Your task to perform on an android device: change notification settings in the gmail app Image 0: 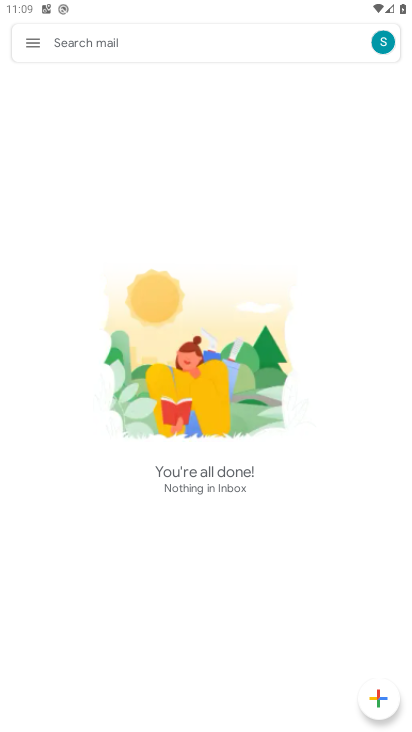
Step 0: press home button
Your task to perform on an android device: change notification settings in the gmail app Image 1: 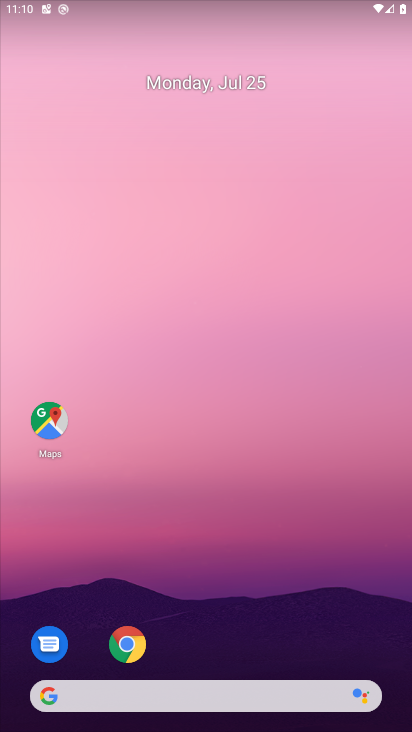
Step 1: drag from (290, 649) to (206, 19)
Your task to perform on an android device: change notification settings in the gmail app Image 2: 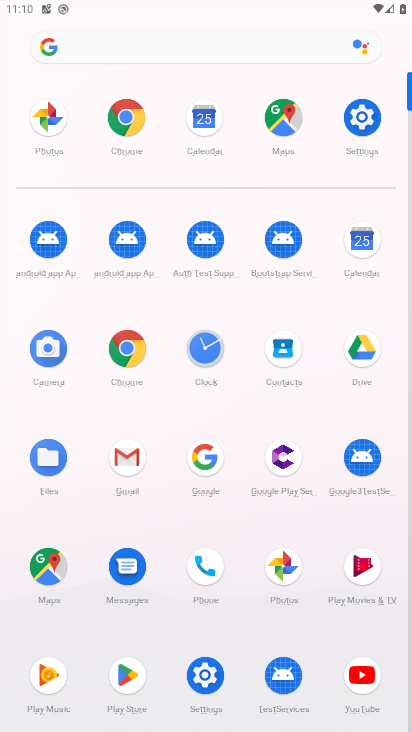
Step 2: click (119, 452)
Your task to perform on an android device: change notification settings in the gmail app Image 3: 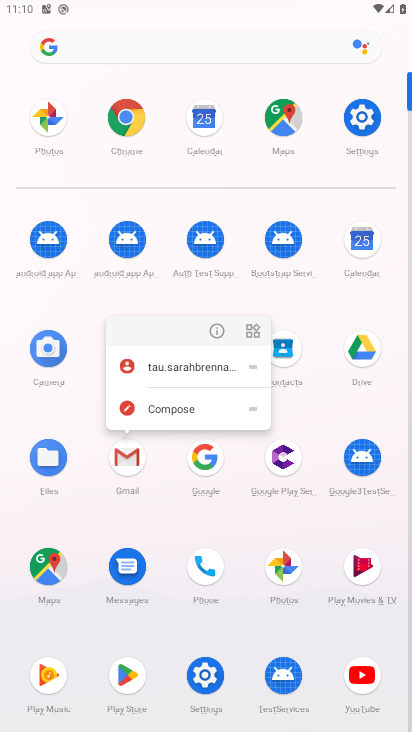
Step 3: click (216, 363)
Your task to perform on an android device: change notification settings in the gmail app Image 4: 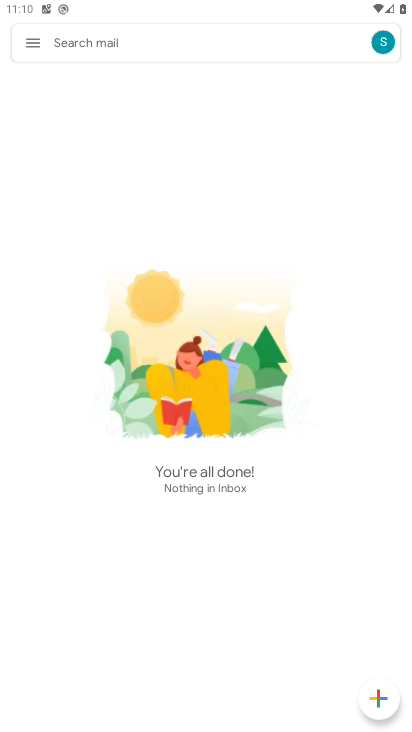
Step 4: press home button
Your task to perform on an android device: change notification settings in the gmail app Image 5: 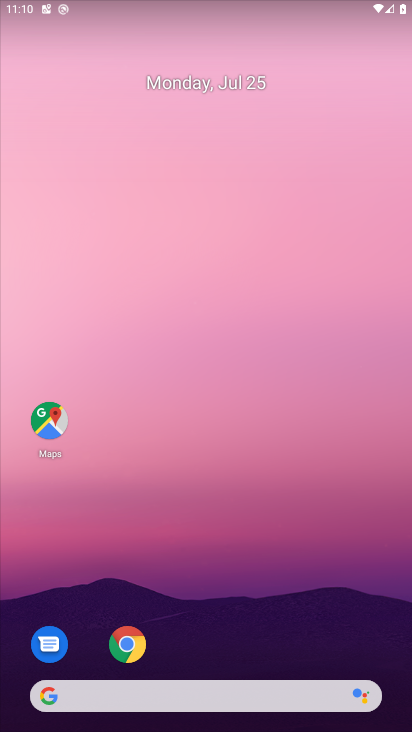
Step 5: click (234, 440)
Your task to perform on an android device: change notification settings in the gmail app Image 6: 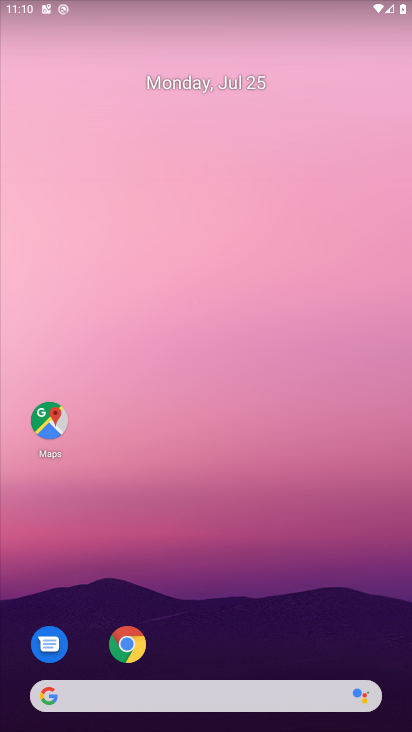
Step 6: click (228, 423)
Your task to perform on an android device: change notification settings in the gmail app Image 7: 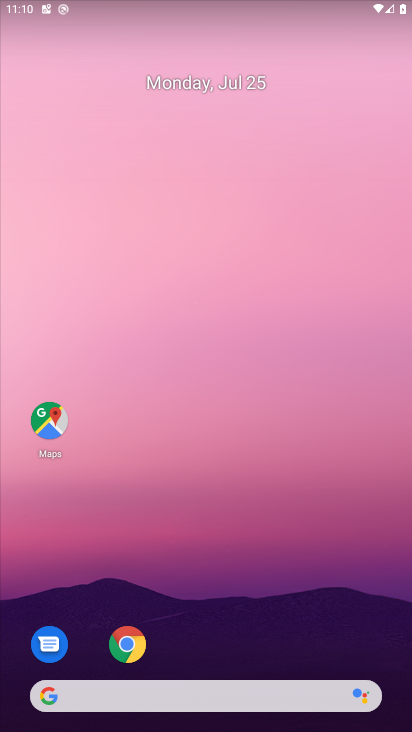
Step 7: drag from (194, 634) to (124, 249)
Your task to perform on an android device: change notification settings in the gmail app Image 8: 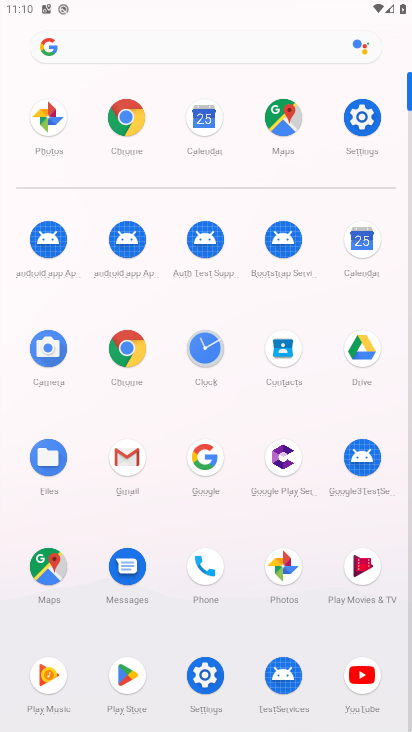
Step 8: click (110, 455)
Your task to perform on an android device: change notification settings in the gmail app Image 9: 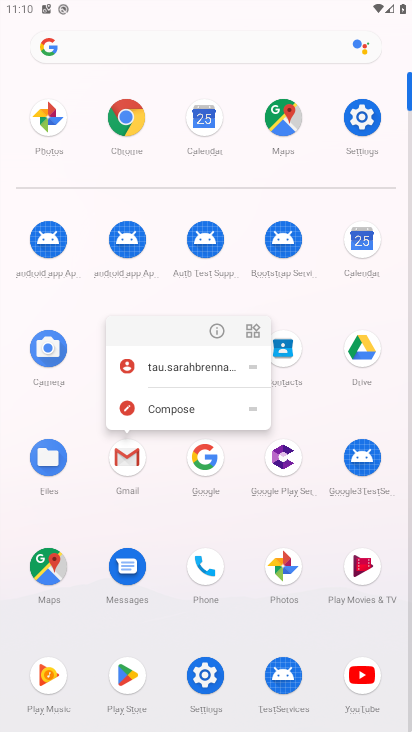
Step 9: click (208, 332)
Your task to perform on an android device: change notification settings in the gmail app Image 10: 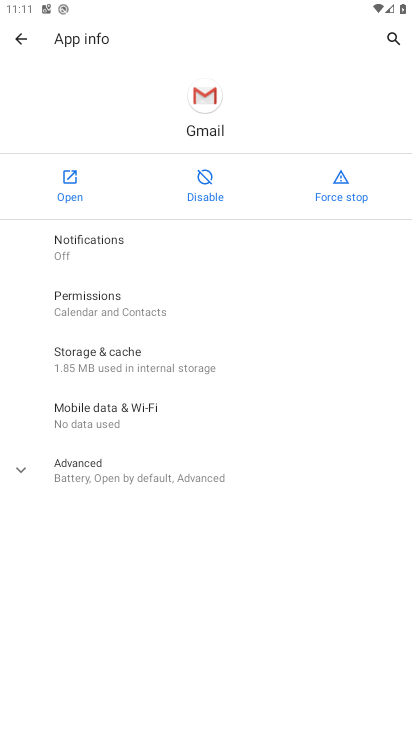
Step 10: click (127, 259)
Your task to perform on an android device: change notification settings in the gmail app Image 11: 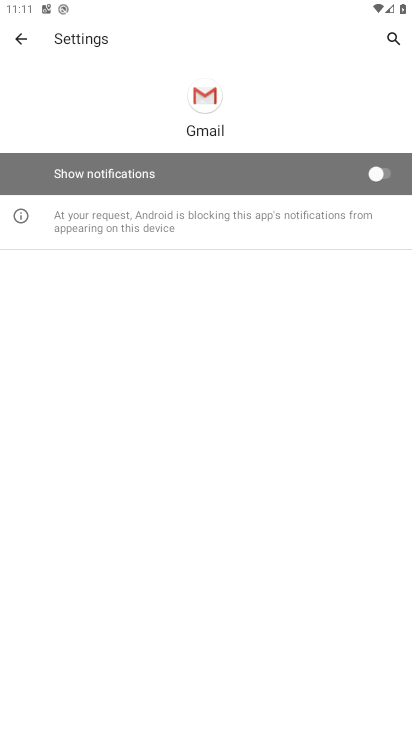
Step 11: click (184, 180)
Your task to perform on an android device: change notification settings in the gmail app Image 12: 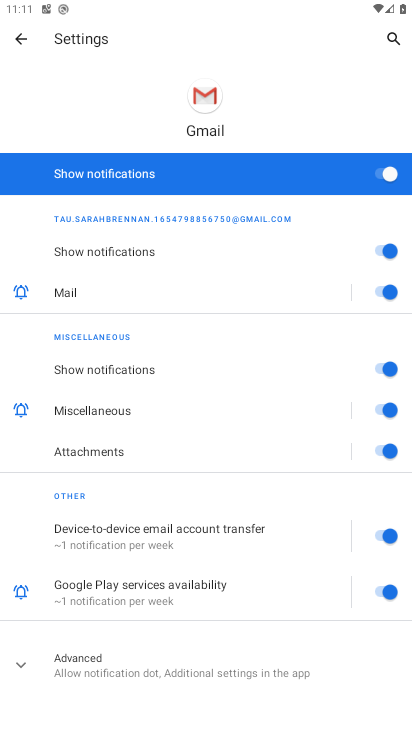
Step 12: task complete